Your task to perform on an android device: Open Yahoo.com Image 0: 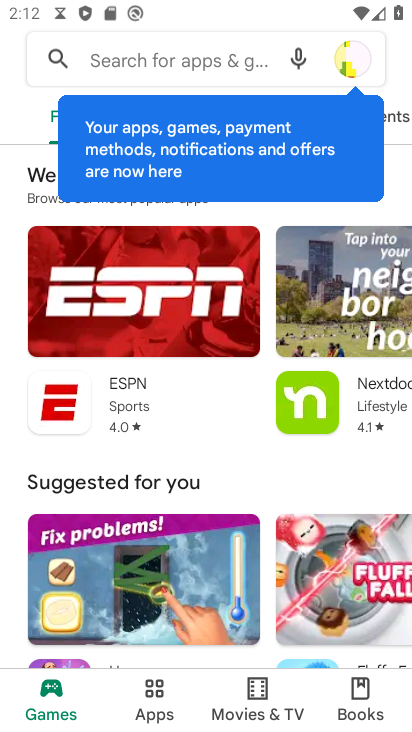
Step 0: press home button
Your task to perform on an android device: Open Yahoo.com Image 1: 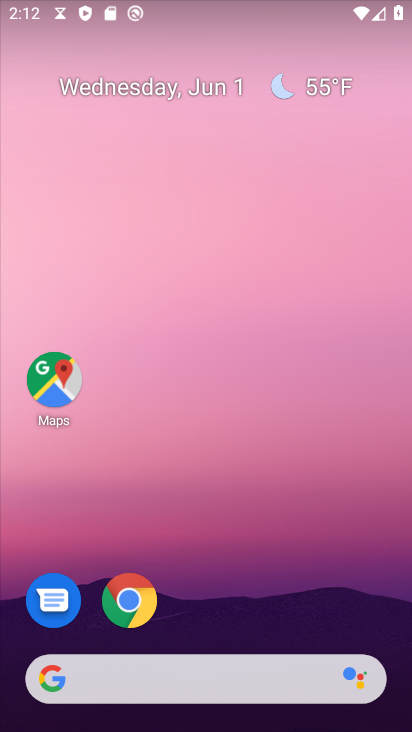
Step 1: click (124, 599)
Your task to perform on an android device: Open Yahoo.com Image 2: 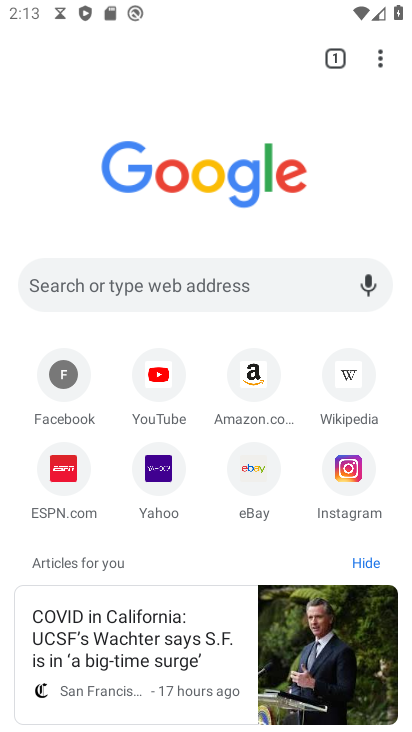
Step 2: click (168, 472)
Your task to perform on an android device: Open Yahoo.com Image 3: 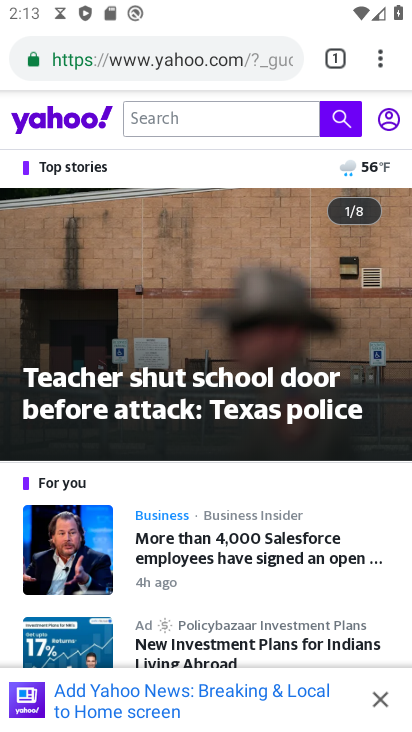
Step 3: task complete